Your task to perform on an android device: change the upload size in google photos Image 0: 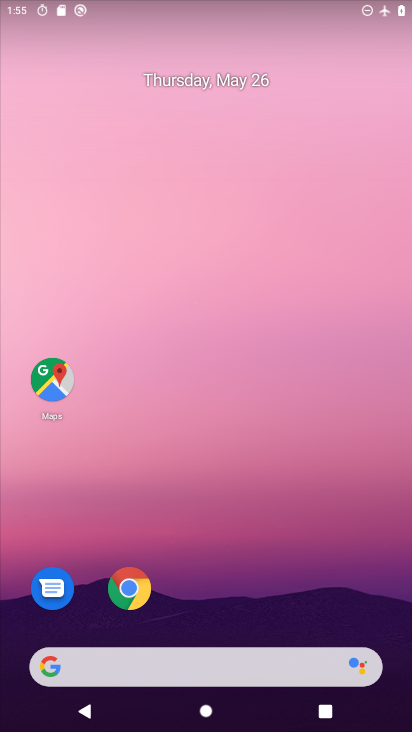
Step 0: drag from (396, 689) to (385, 284)
Your task to perform on an android device: change the upload size in google photos Image 1: 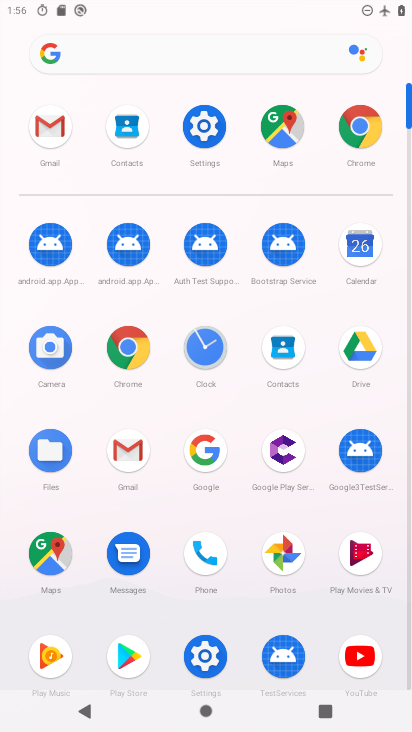
Step 1: click (283, 563)
Your task to perform on an android device: change the upload size in google photos Image 2: 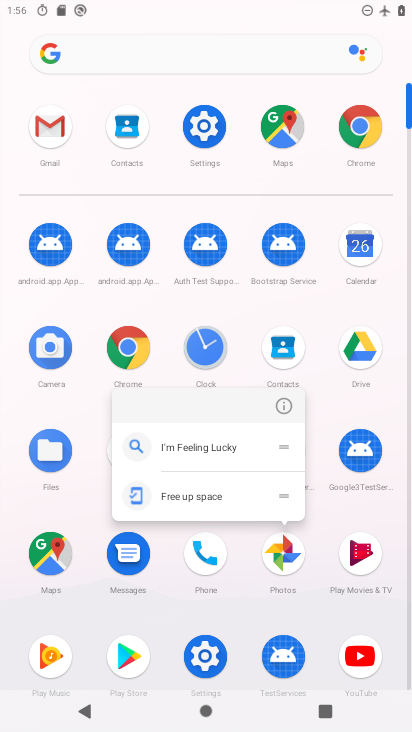
Step 2: click (282, 553)
Your task to perform on an android device: change the upload size in google photos Image 3: 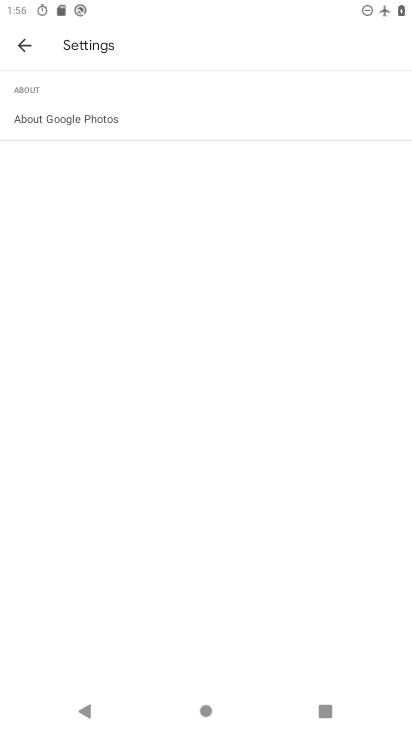
Step 3: click (15, 45)
Your task to perform on an android device: change the upload size in google photos Image 4: 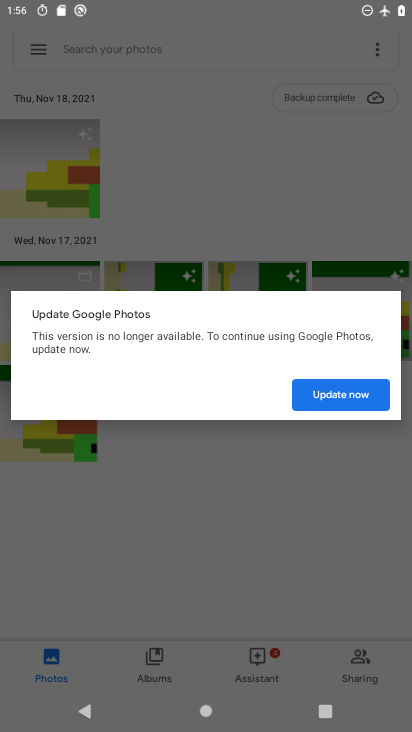
Step 4: click (340, 403)
Your task to perform on an android device: change the upload size in google photos Image 5: 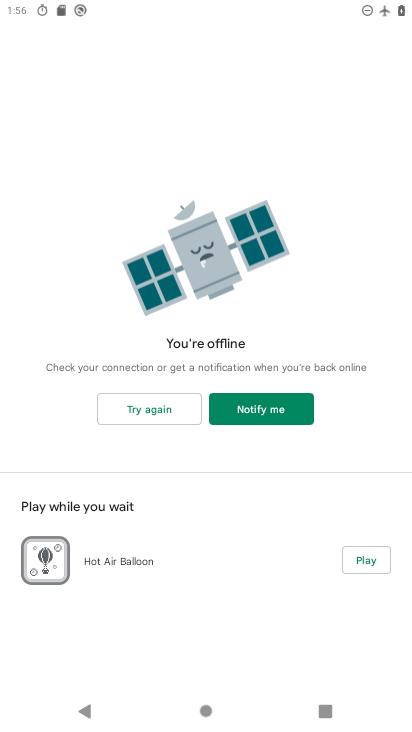
Step 5: task complete